Your task to perform on an android device: turn on wifi Image 0: 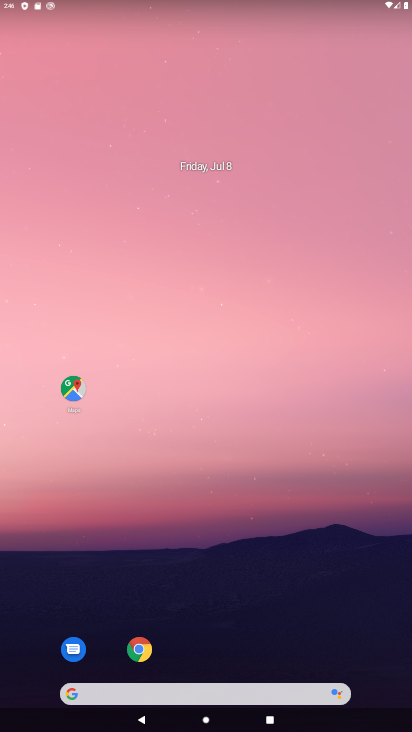
Step 0: drag from (175, 666) to (174, 89)
Your task to perform on an android device: turn on wifi Image 1: 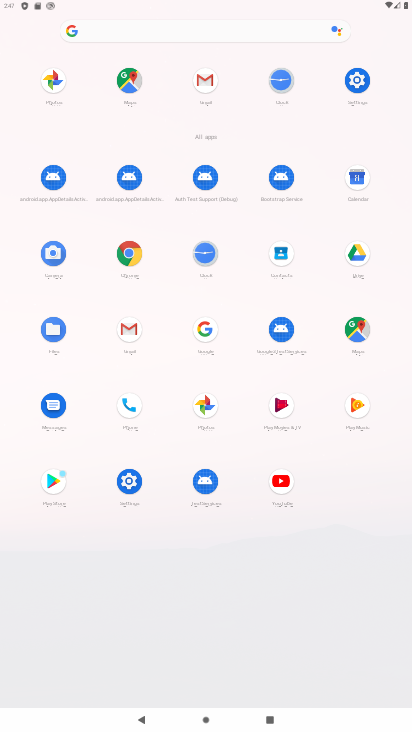
Step 1: click (352, 79)
Your task to perform on an android device: turn on wifi Image 2: 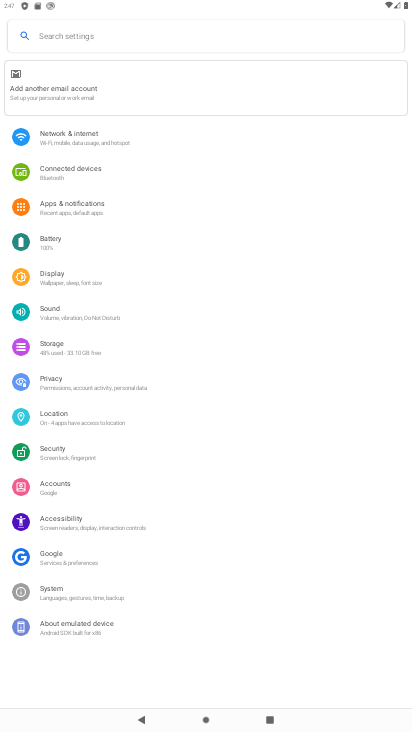
Step 2: click (70, 142)
Your task to perform on an android device: turn on wifi Image 3: 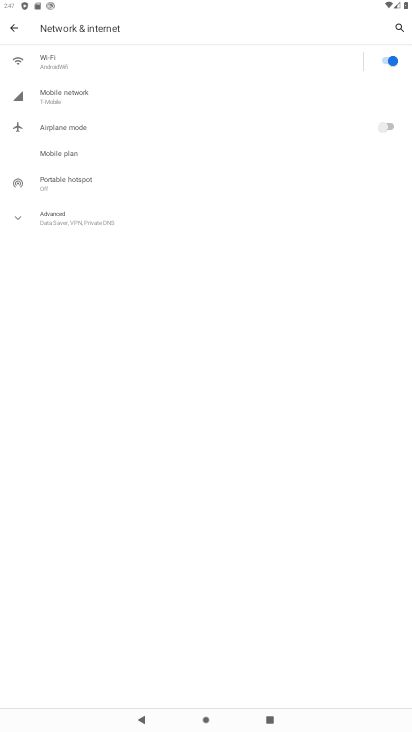
Step 3: click (66, 66)
Your task to perform on an android device: turn on wifi Image 4: 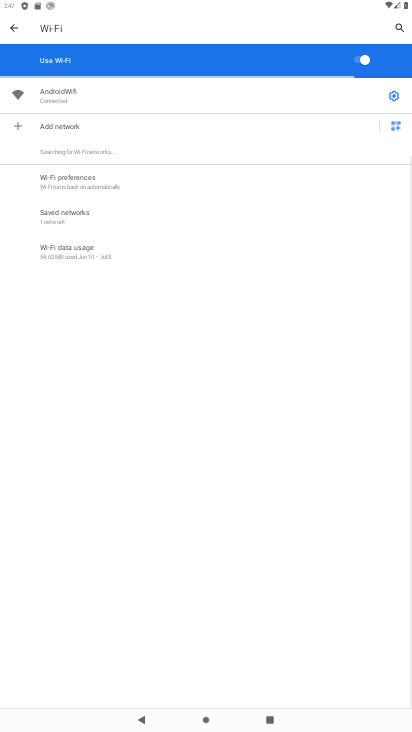
Step 4: task complete